Your task to perform on an android device: Open Google Chrome and click the shortcut for Amazon.com Image 0: 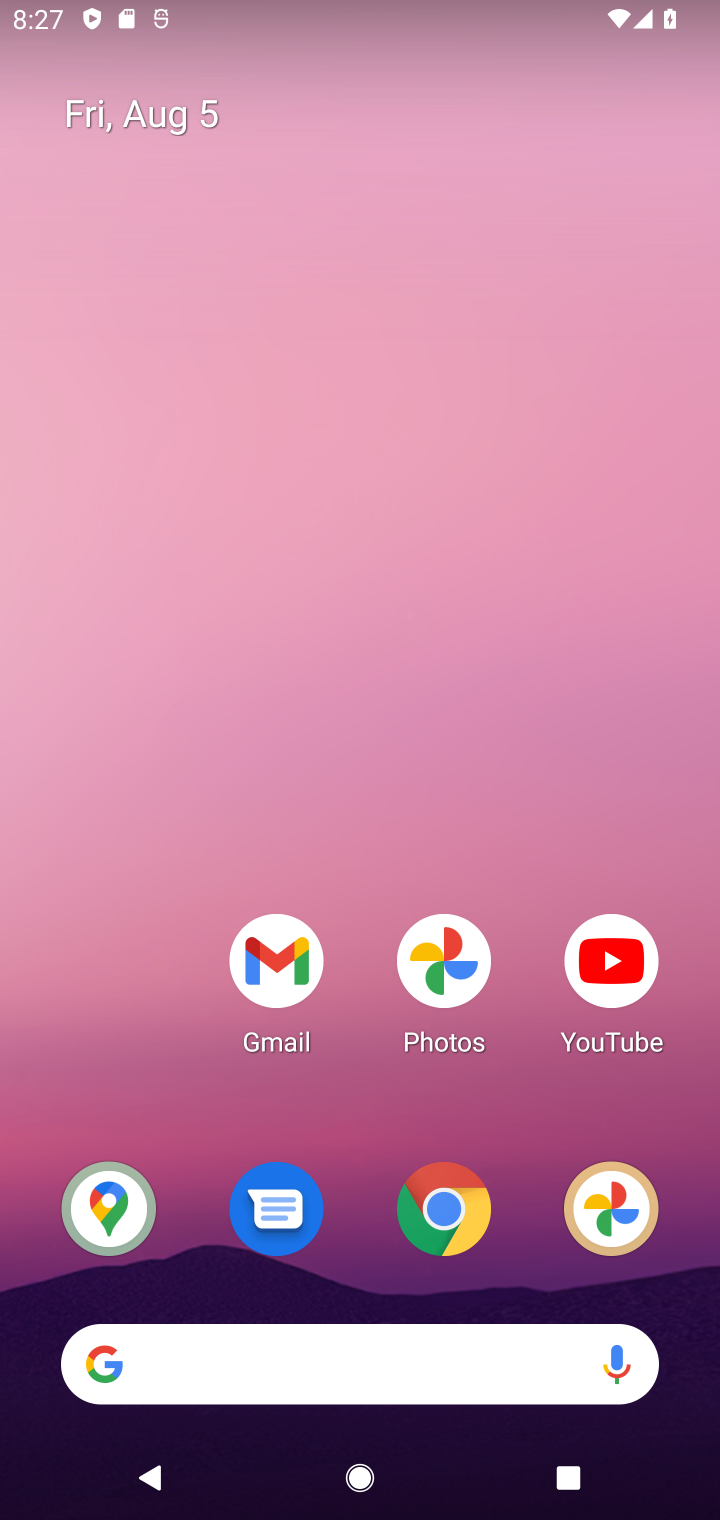
Step 0: press home button
Your task to perform on an android device: Open Google Chrome and click the shortcut for Amazon.com Image 1: 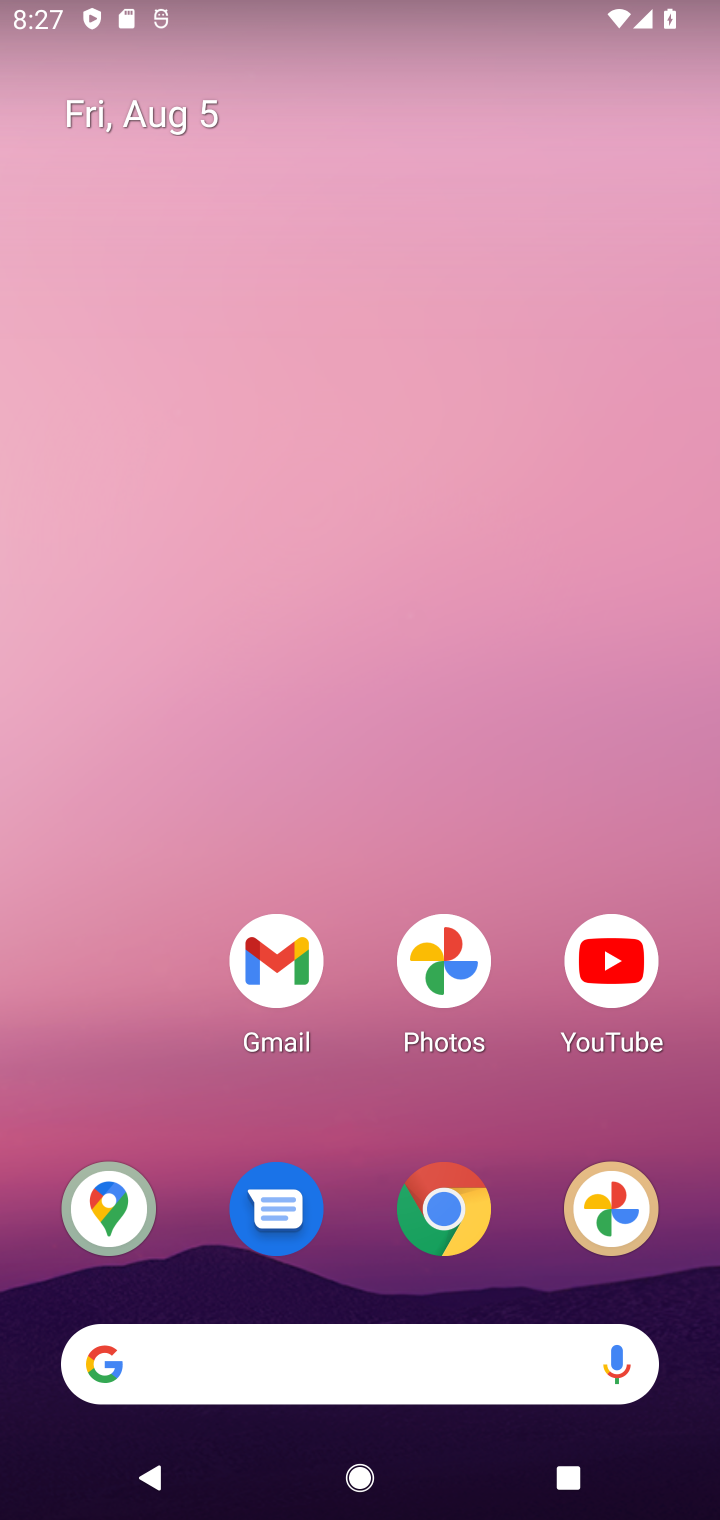
Step 1: drag from (533, 1119) to (388, 10)
Your task to perform on an android device: Open Google Chrome and click the shortcut for Amazon.com Image 2: 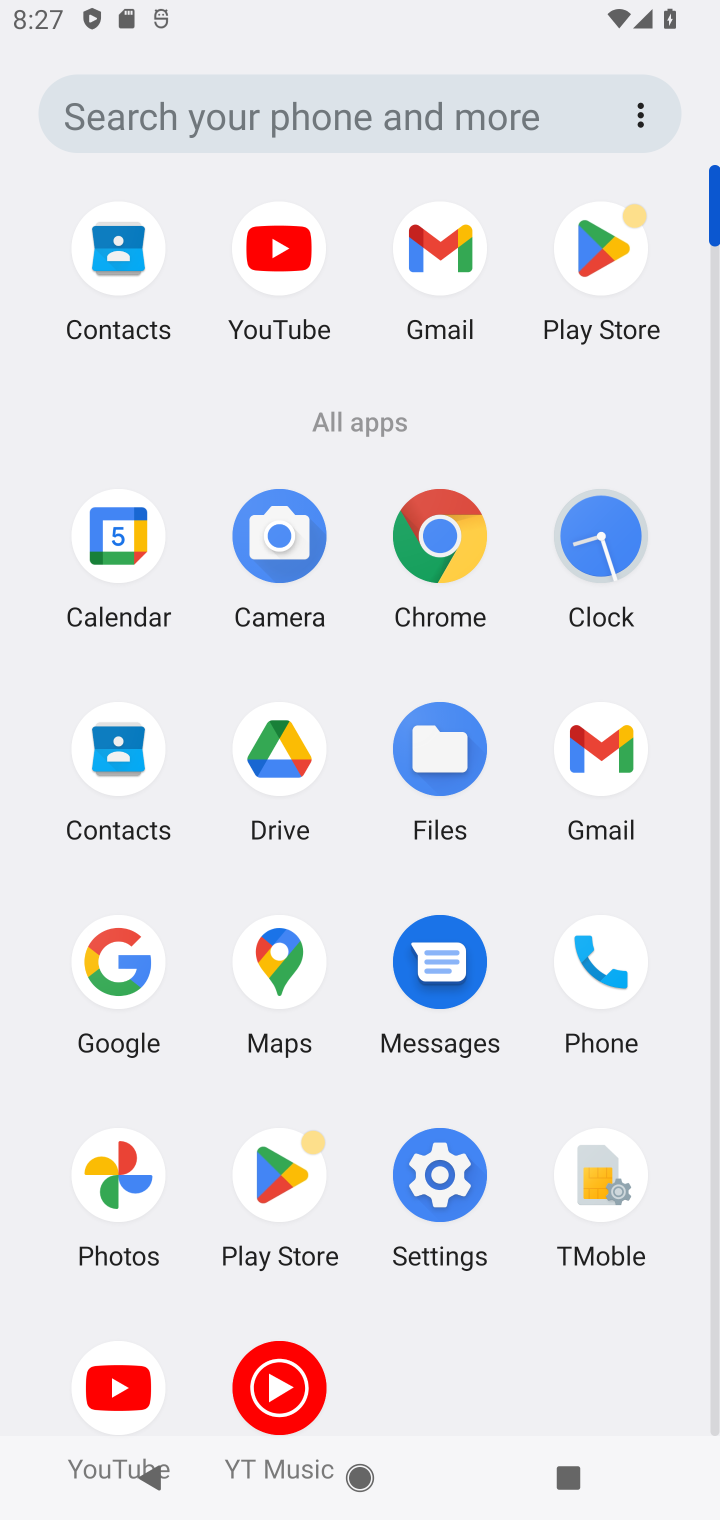
Step 2: click (441, 538)
Your task to perform on an android device: Open Google Chrome and click the shortcut for Amazon.com Image 3: 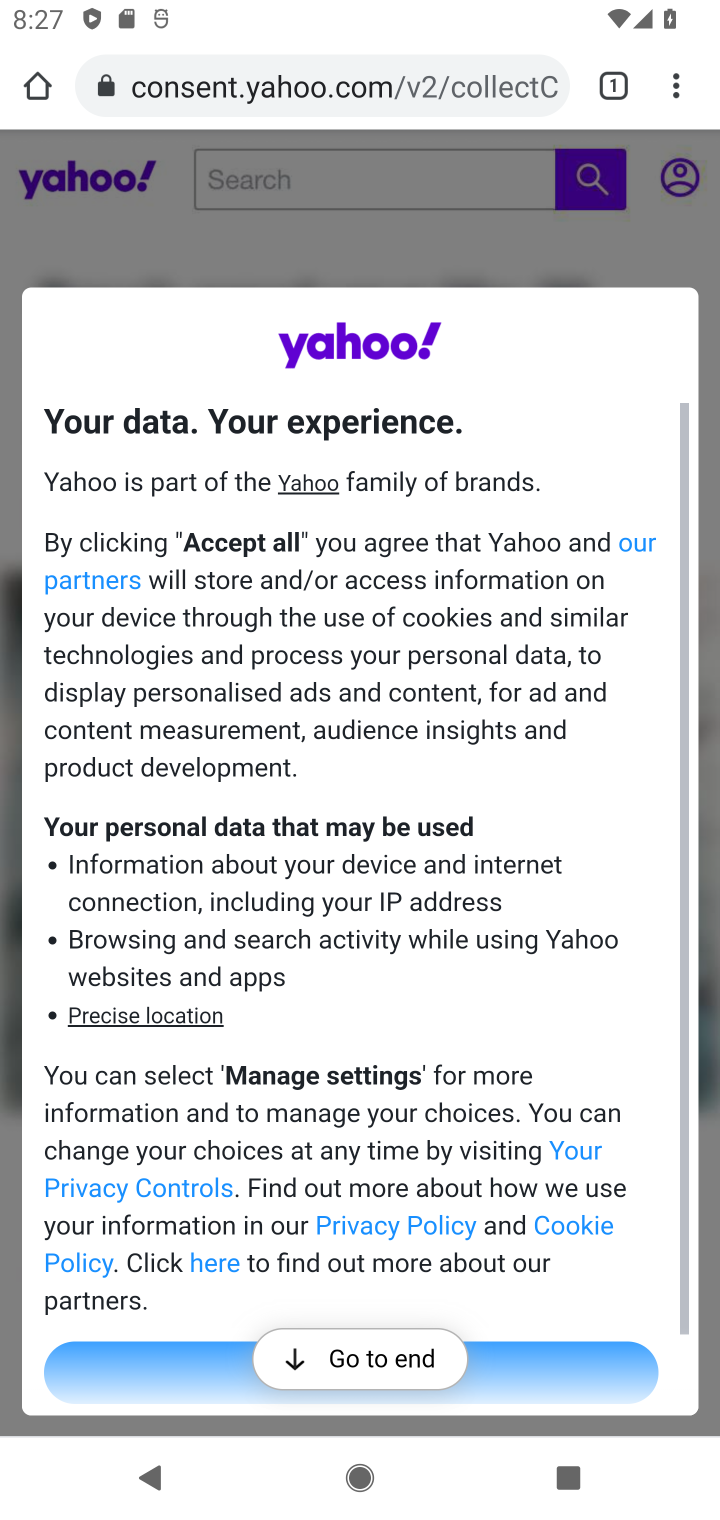
Step 3: press home button
Your task to perform on an android device: Open Google Chrome and click the shortcut for Amazon.com Image 4: 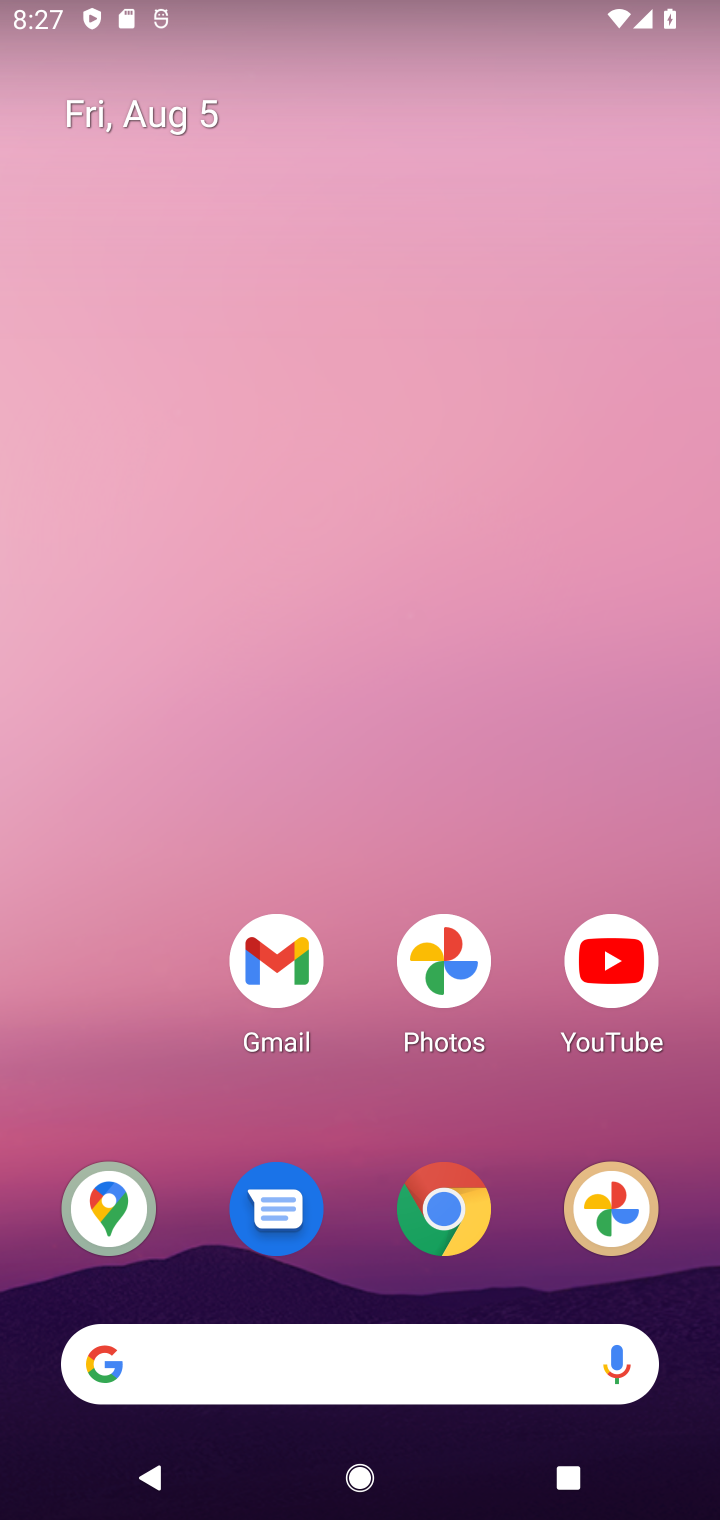
Step 4: click (443, 1225)
Your task to perform on an android device: Open Google Chrome and click the shortcut for Amazon.com Image 5: 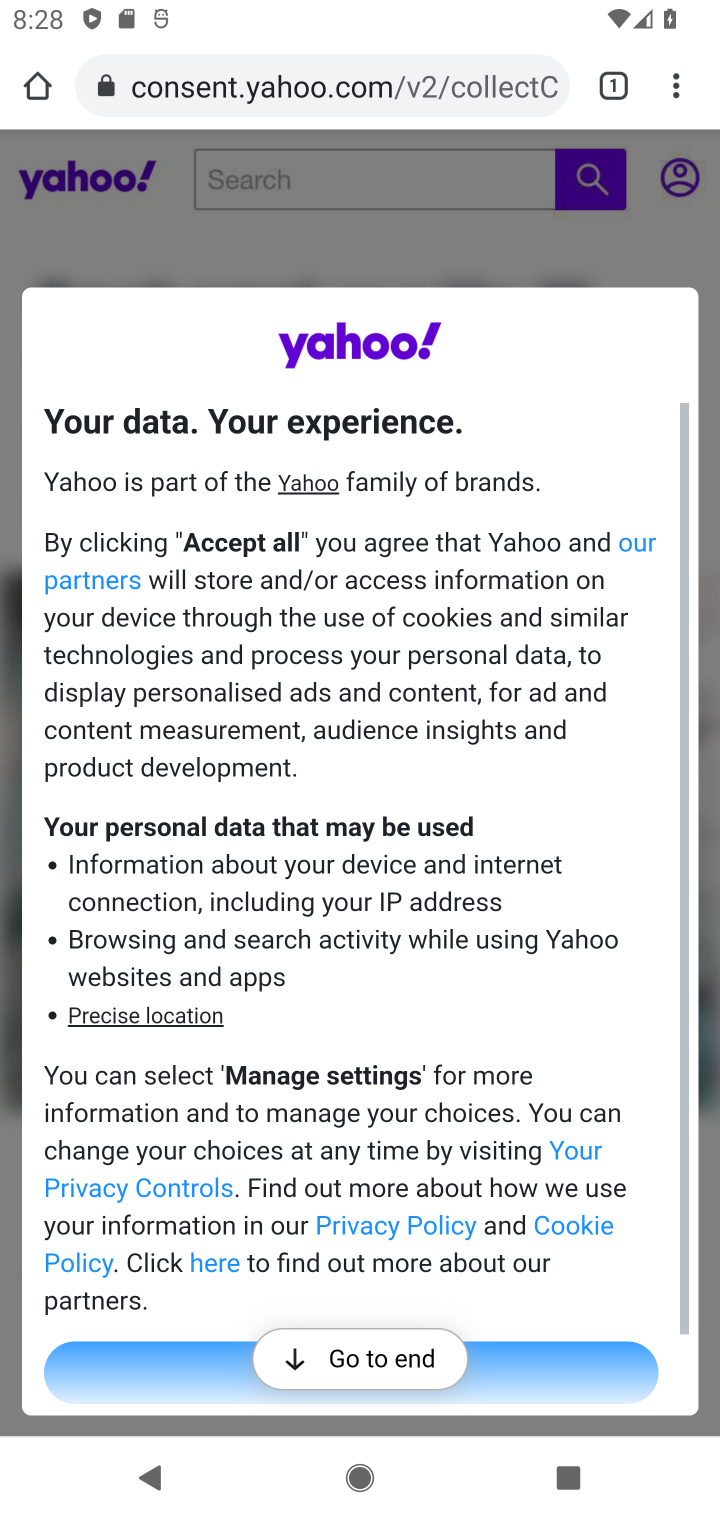
Step 5: click (622, 72)
Your task to perform on an android device: Open Google Chrome and click the shortcut for Amazon.com Image 6: 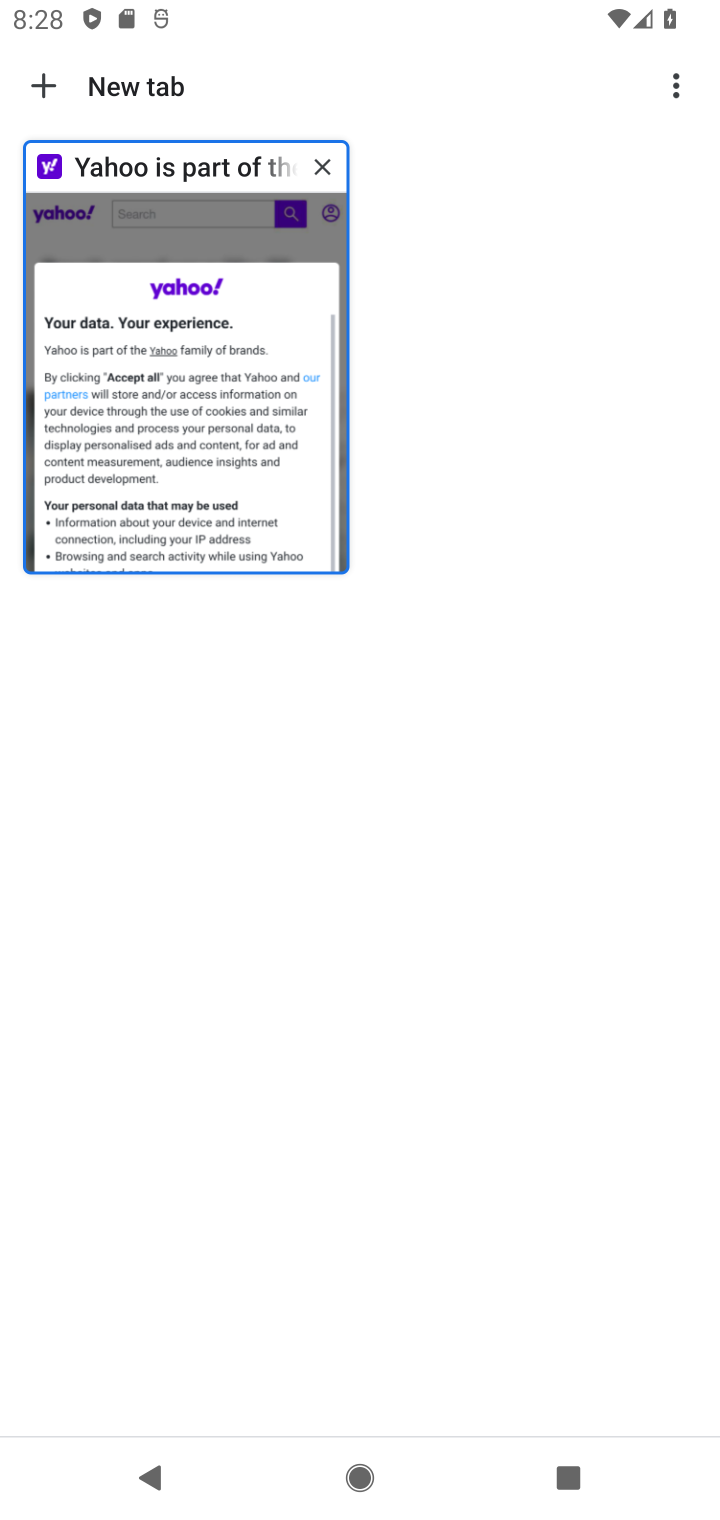
Step 6: click (119, 95)
Your task to perform on an android device: Open Google Chrome and click the shortcut for Amazon.com Image 7: 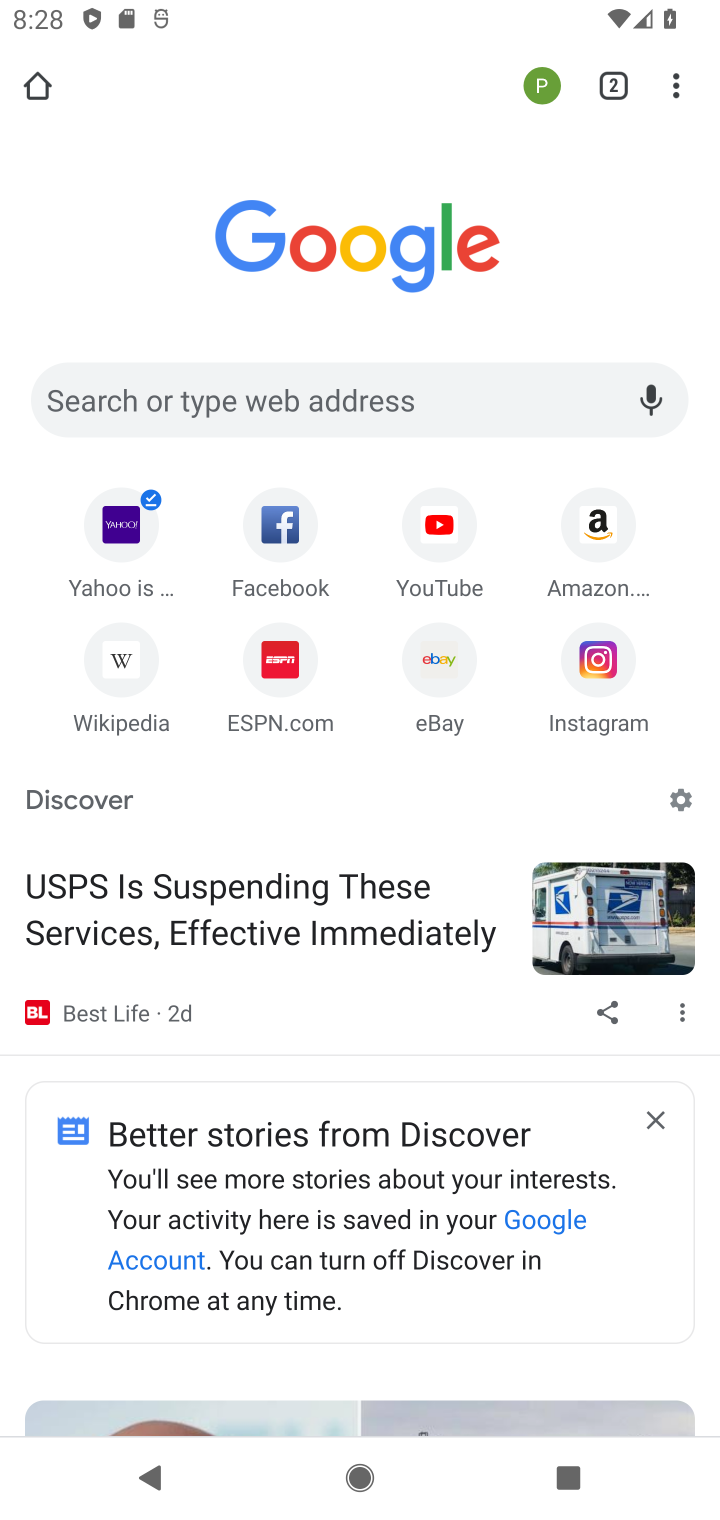
Step 7: click (623, 555)
Your task to perform on an android device: Open Google Chrome and click the shortcut for Amazon.com Image 8: 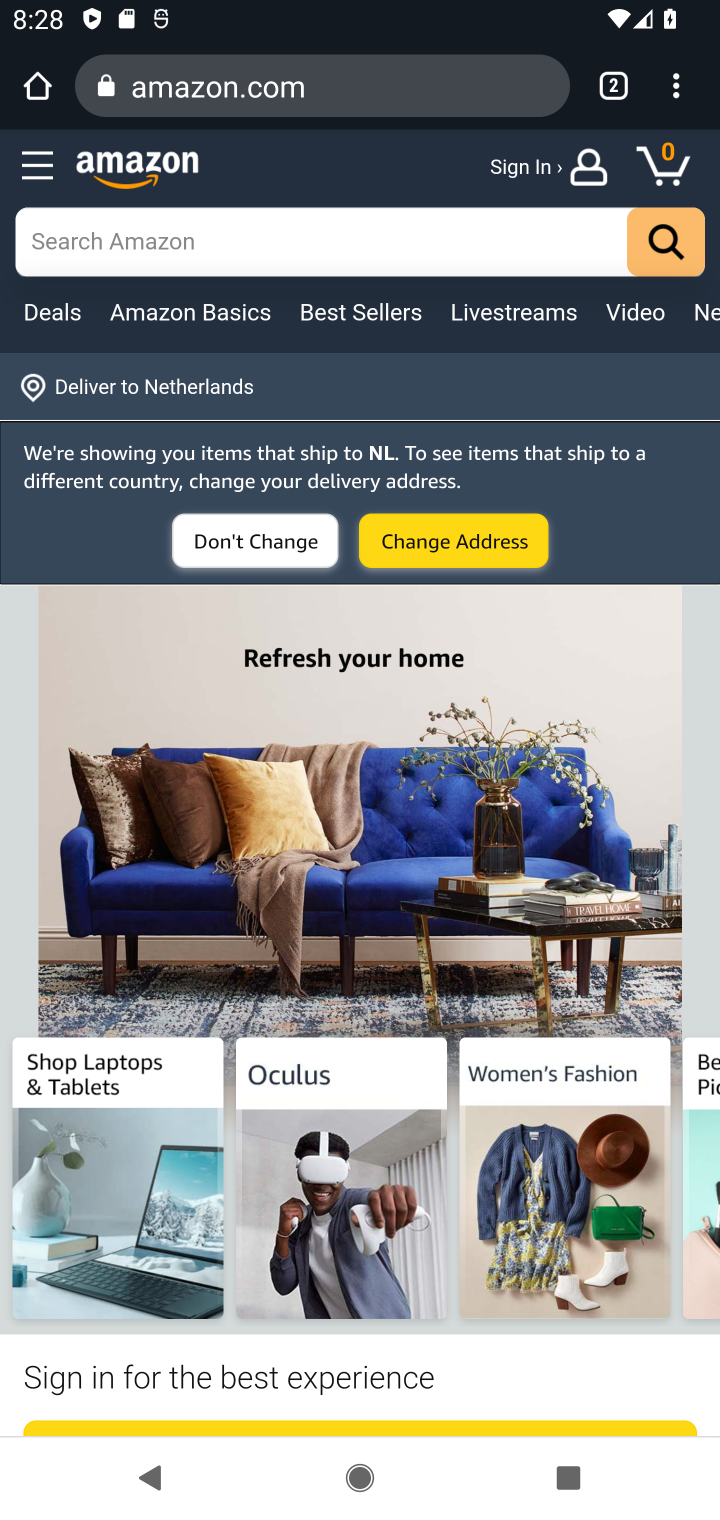
Step 8: task complete